Your task to perform on an android device: clear all cookies in the chrome app Image 0: 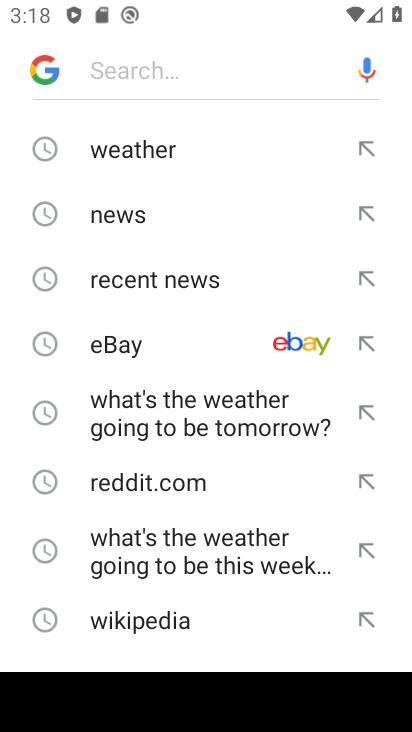
Step 0: press back button
Your task to perform on an android device: clear all cookies in the chrome app Image 1: 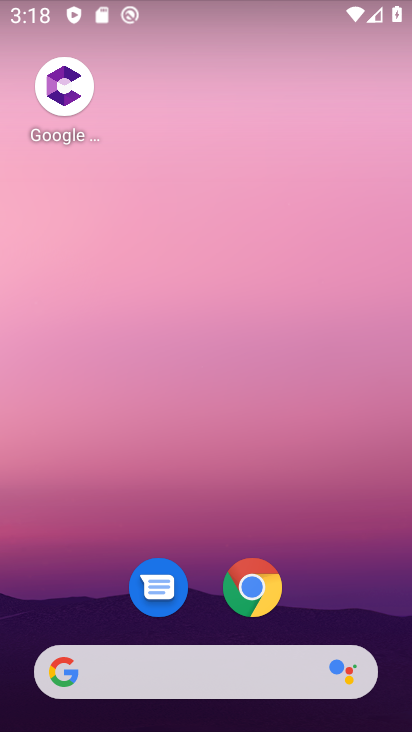
Step 1: drag from (328, 555) to (270, 79)
Your task to perform on an android device: clear all cookies in the chrome app Image 2: 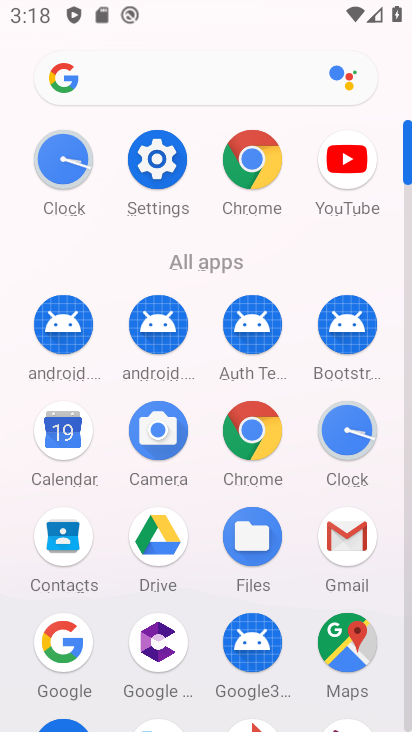
Step 2: drag from (18, 522) to (27, 279)
Your task to perform on an android device: clear all cookies in the chrome app Image 3: 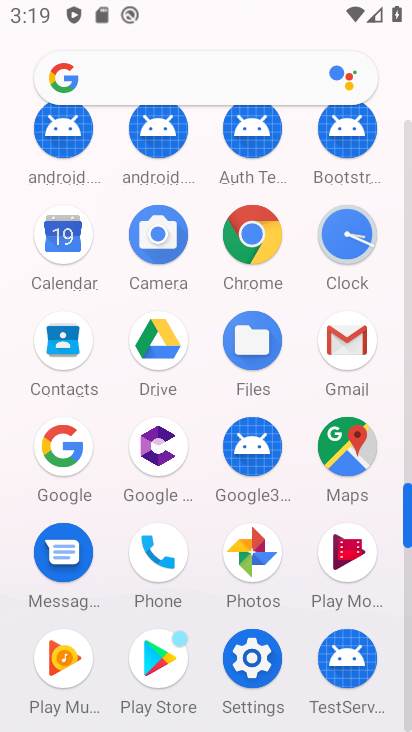
Step 3: click (251, 228)
Your task to perform on an android device: clear all cookies in the chrome app Image 4: 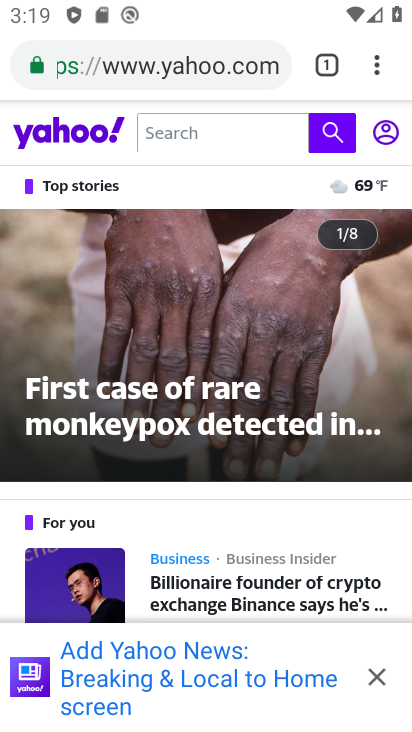
Step 4: drag from (374, 71) to (159, 631)
Your task to perform on an android device: clear all cookies in the chrome app Image 5: 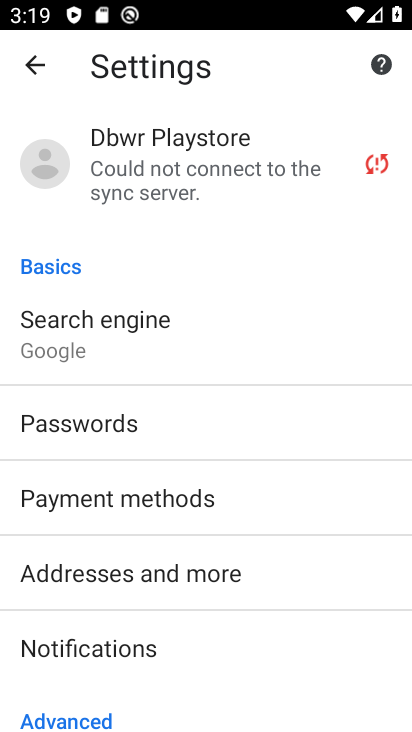
Step 5: drag from (247, 599) to (235, 246)
Your task to perform on an android device: clear all cookies in the chrome app Image 6: 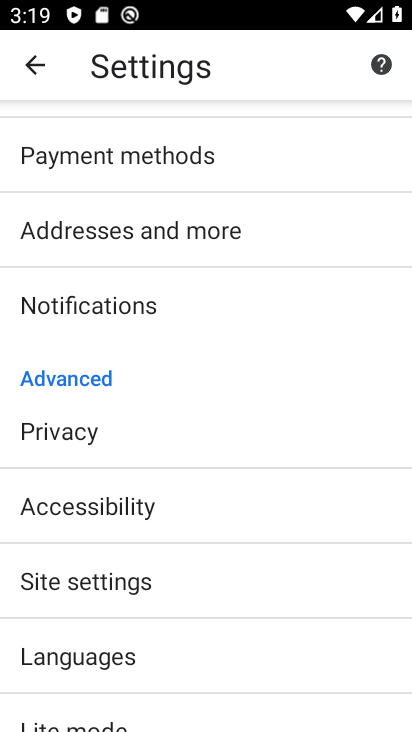
Step 6: drag from (252, 541) to (249, 202)
Your task to perform on an android device: clear all cookies in the chrome app Image 7: 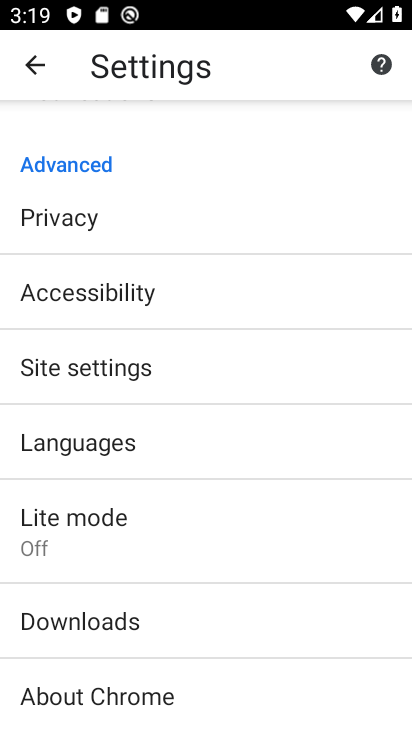
Step 7: drag from (231, 524) to (239, 248)
Your task to perform on an android device: clear all cookies in the chrome app Image 8: 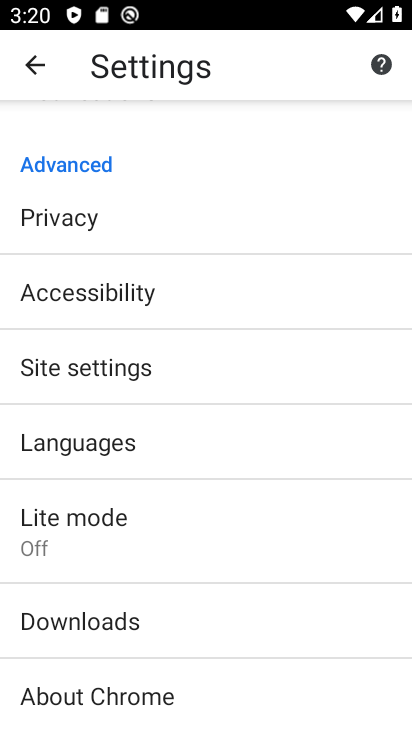
Step 8: click (115, 222)
Your task to perform on an android device: clear all cookies in the chrome app Image 9: 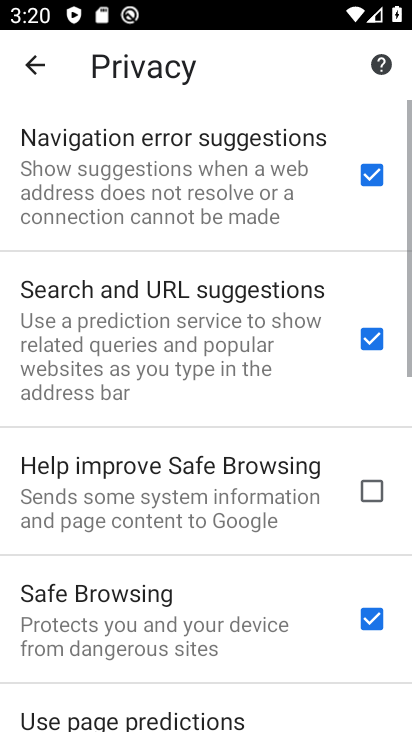
Step 9: drag from (215, 619) to (262, 231)
Your task to perform on an android device: clear all cookies in the chrome app Image 10: 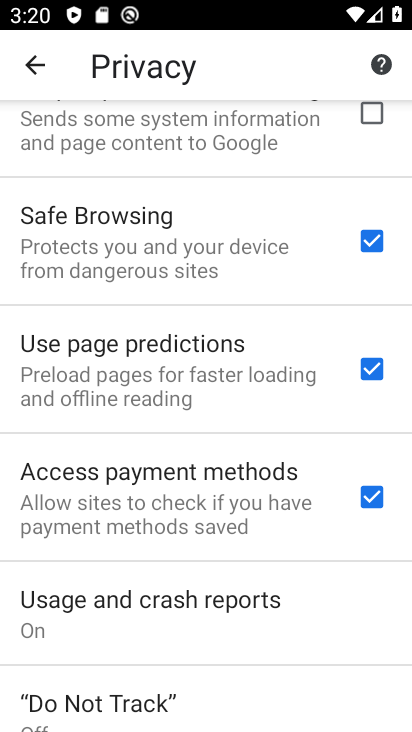
Step 10: drag from (185, 597) to (222, 85)
Your task to perform on an android device: clear all cookies in the chrome app Image 11: 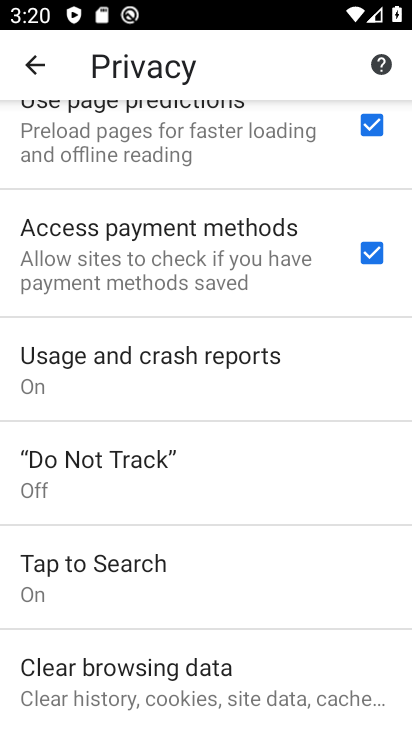
Step 11: click (189, 670)
Your task to perform on an android device: clear all cookies in the chrome app Image 12: 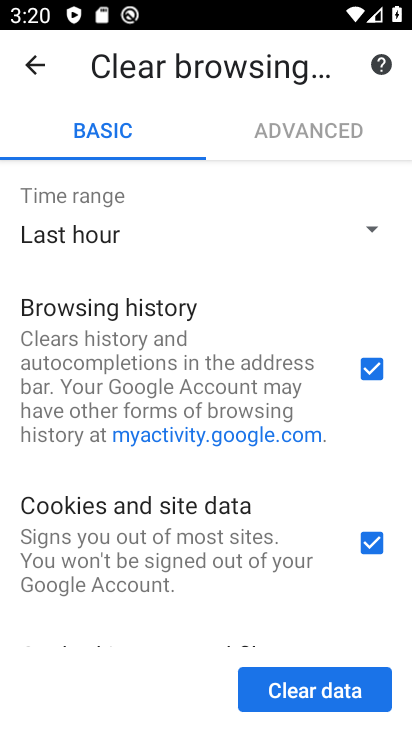
Step 12: click (298, 690)
Your task to perform on an android device: clear all cookies in the chrome app Image 13: 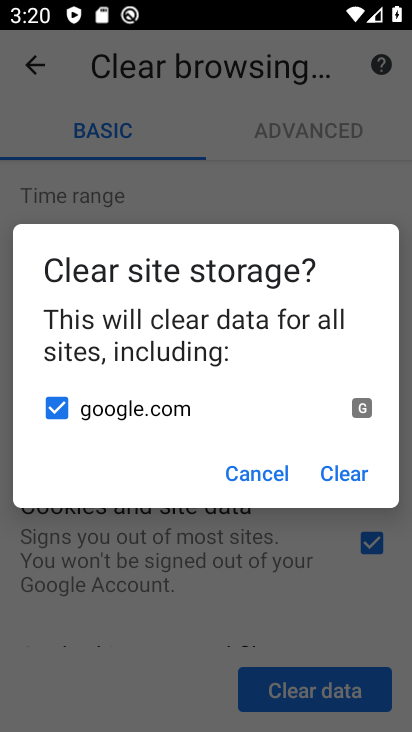
Step 13: click (336, 476)
Your task to perform on an android device: clear all cookies in the chrome app Image 14: 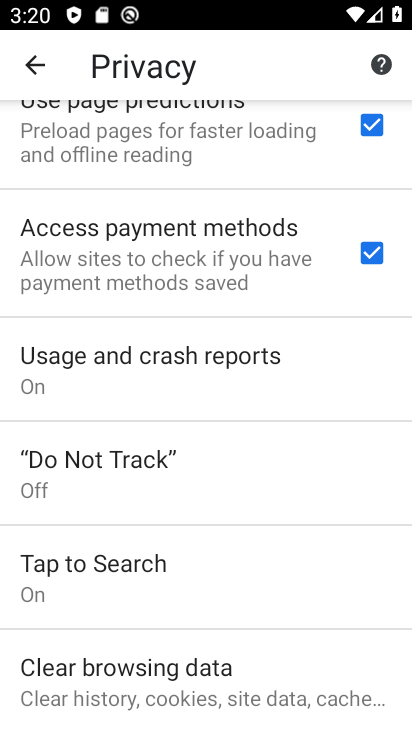
Step 14: task complete